Your task to perform on an android device: turn on the 12-hour format for clock Image 0: 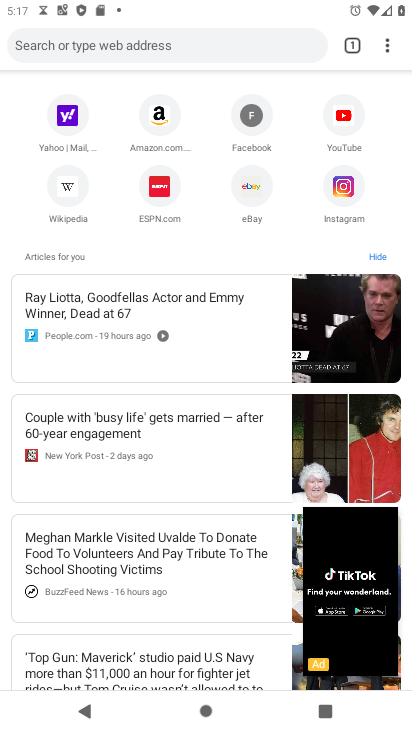
Step 0: click (343, 578)
Your task to perform on an android device: turn on the 12-hour format for clock Image 1: 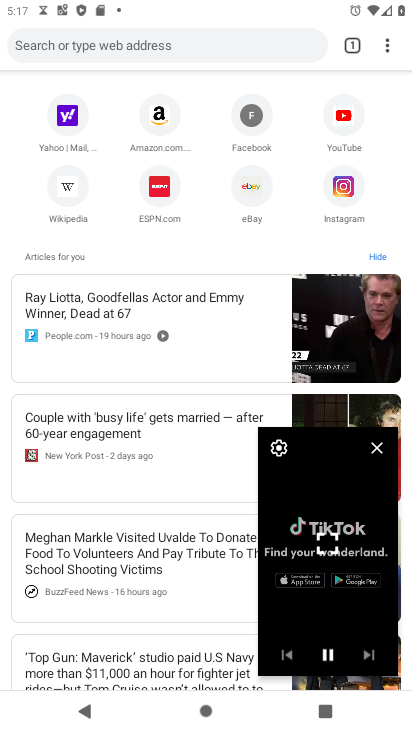
Step 1: click (321, 540)
Your task to perform on an android device: turn on the 12-hour format for clock Image 2: 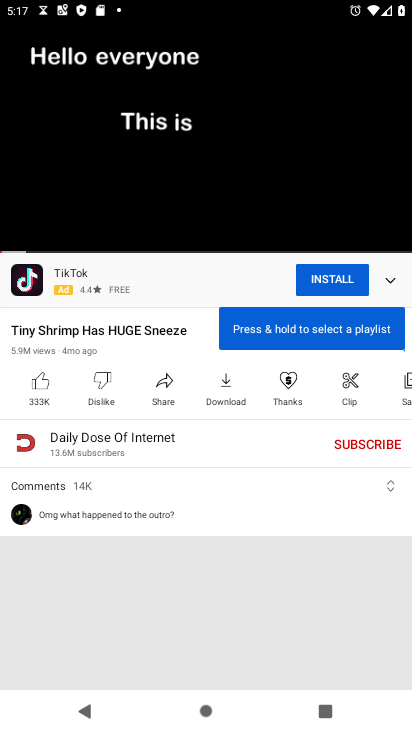
Step 2: click (150, 248)
Your task to perform on an android device: turn on the 12-hour format for clock Image 3: 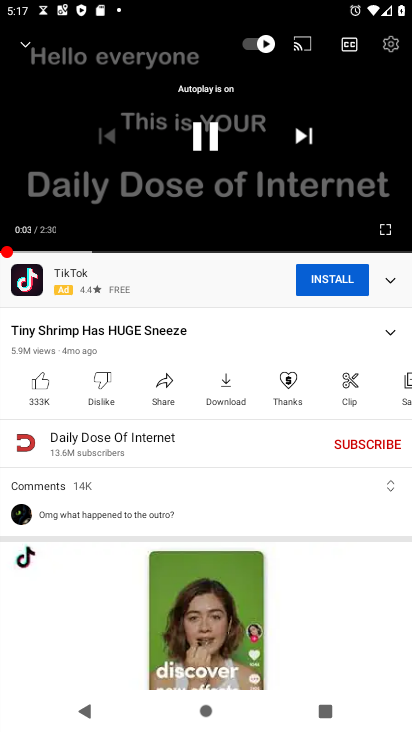
Step 3: click (206, 131)
Your task to perform on an android device: turn on the 12-hour format for clock Image 4: 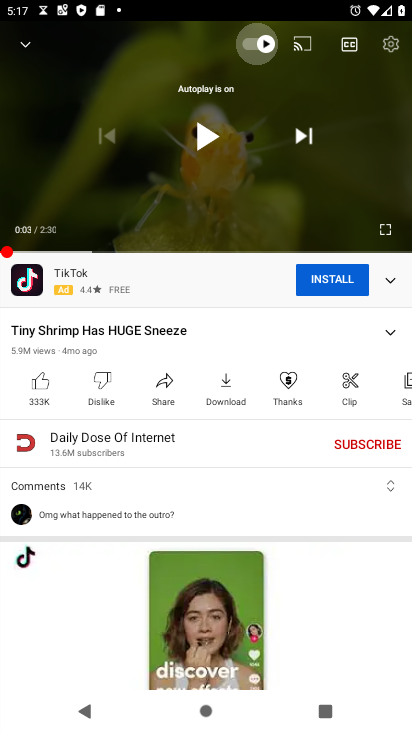
Step 4: press home button
Your task to perform on an android device: turn on the 12-hour format for clock Image 5: 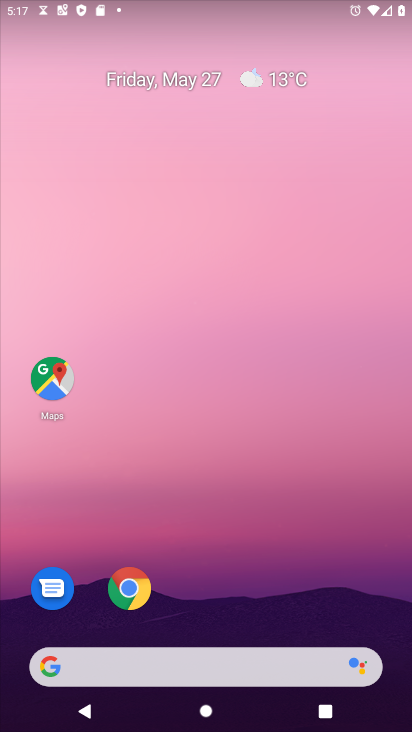
Step 5: drag from (202, 602) to (300, 24)
Your task to perform on an android device: turn on the 12-hour format for clock Image 6: 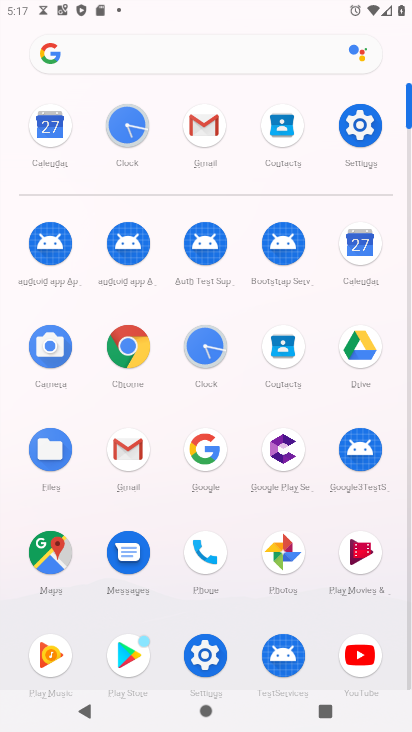
Step 6: click (201, 349)
Your task to perform on an android device: turn on the 12-hour format for clock Image 7: 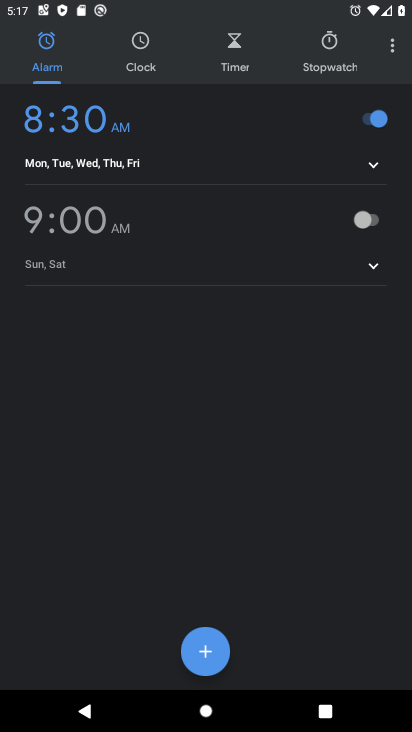
Step 7: drag from (393, 43) to (291, 379)
Your task to perform on an android device: turn on the 12-hour format for clock Image 8: 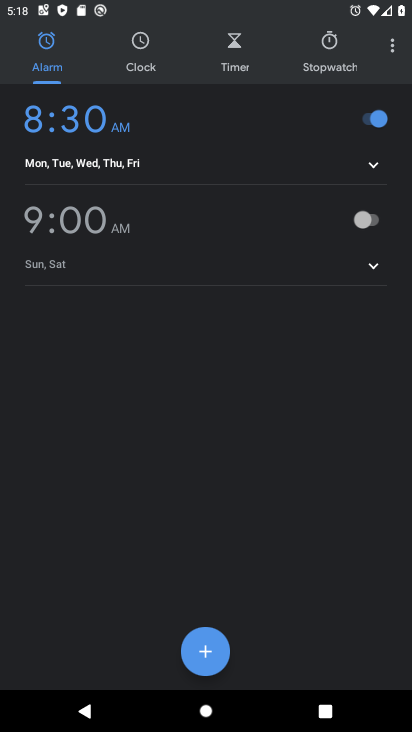
Step 8: click (384, 38)
Your task to perform on an android device: turn on the 12-hour format for clock Image 9: 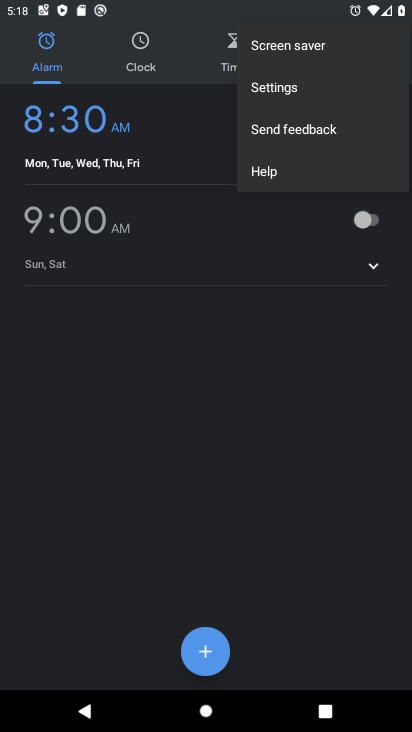
Step 9: click (313, 94)
Your task to perform on an android device: turn on the 12-hour format for clock Image 10: 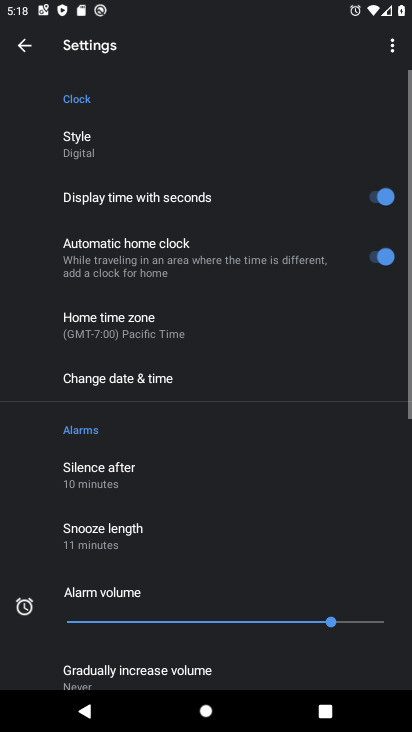
Step 10: click (119, 378)
Your task to perform on an android device: turn on the 12-hour format for clock Image 11: 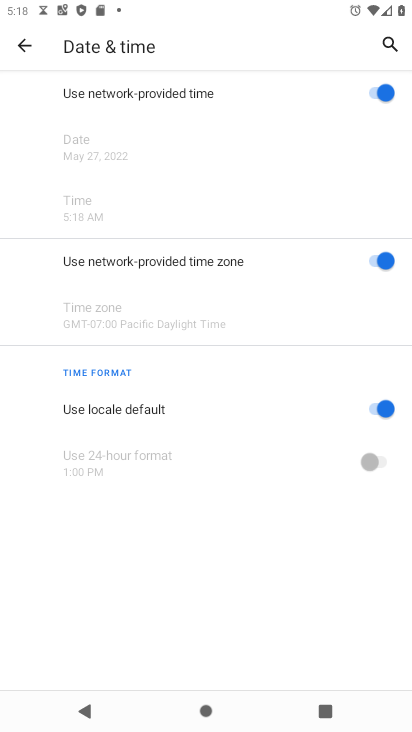
Step 11: task complete